Your task to perform on an android device: Turn on the flashlight Image 0: 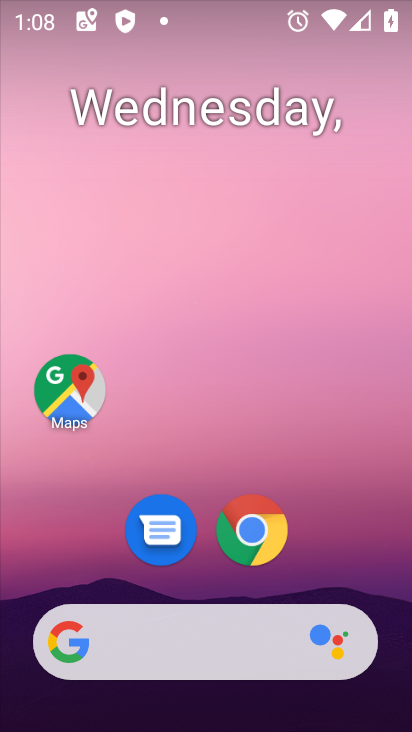
Step 0: drag from (223, 559) to (283, 224)
Your task to perform on an android device: Turn on the flashlight Image 1: 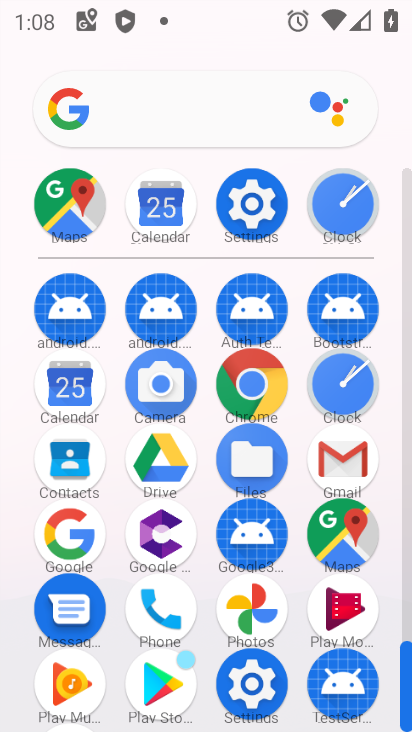
Step 1: click (245, 206)
Your task to perform on an android device: Turn on the flashlight Image 2: 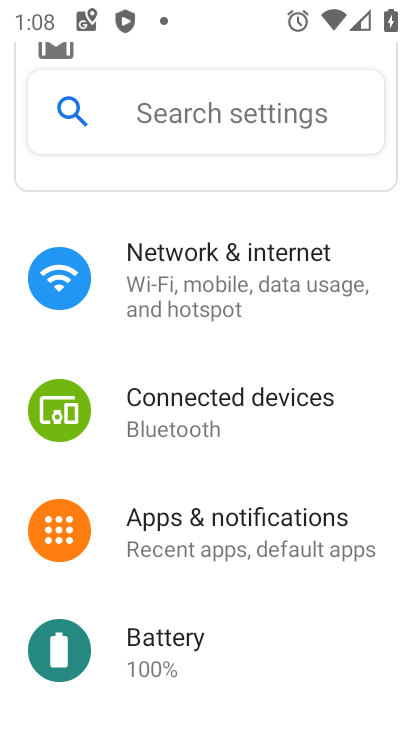
Step 2: drag from (210, 576) to (292, 163)
Your task to perform on an android device: Turn on the flashlight Image 3: 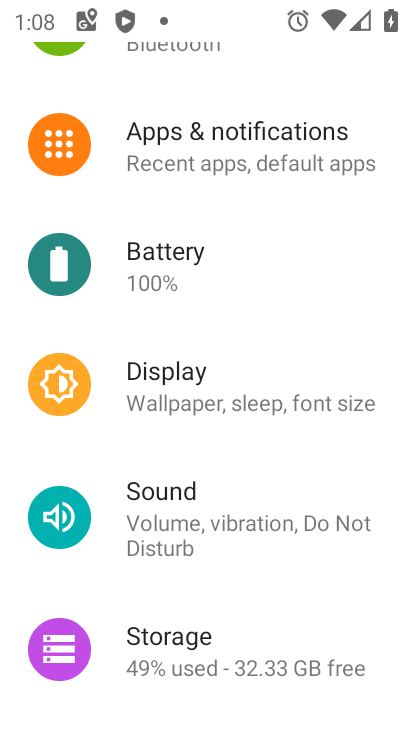
Step 3: click (198, 395)
Your task to perform on an android device: Turn on the flashlight Image 4: 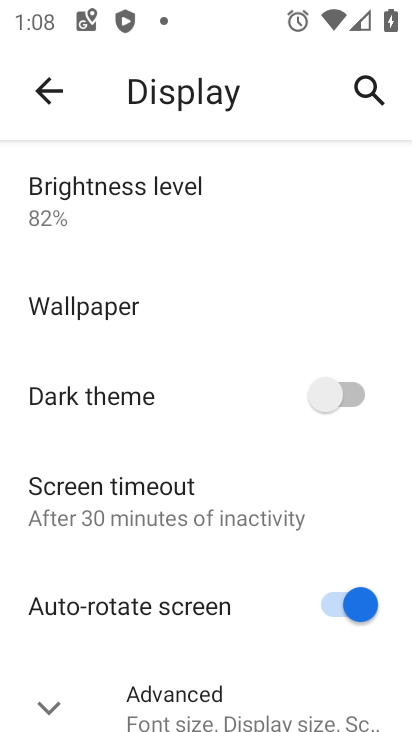
Step 4: task complete